Your task to perform on an android device: Open the Play Movies app and select the watchlist tab. Image 0: 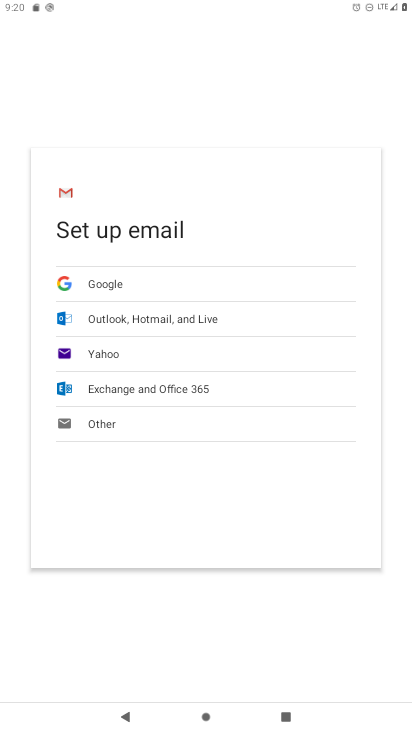
Step 0: press home button
Your task to perform on an android device: Open the Play Movies app and select the watchlist tab. Image 1: 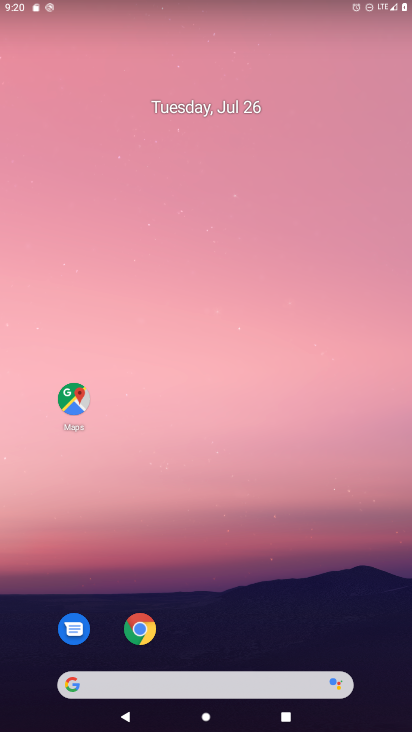
Step 1: drag from (244, 646) to (232, 106)
Your task to perform on an android device: Open the Play Movies app and select the watchlist tab. Image 2: 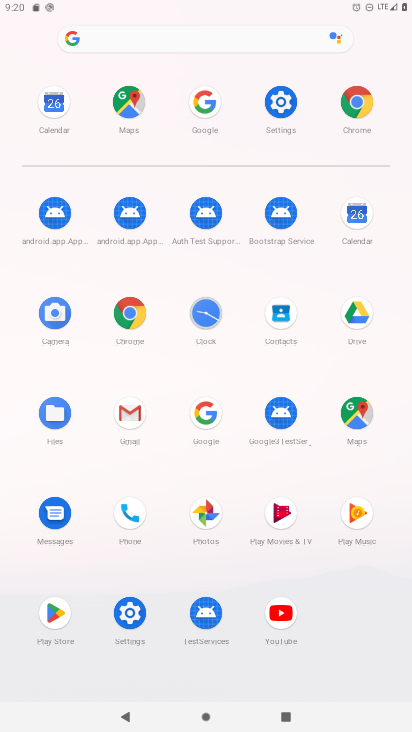
Step 2: click (288, 517)
Your task to perform on an android device: Open the Play Movies app and select the watchlist tab. Image 3: 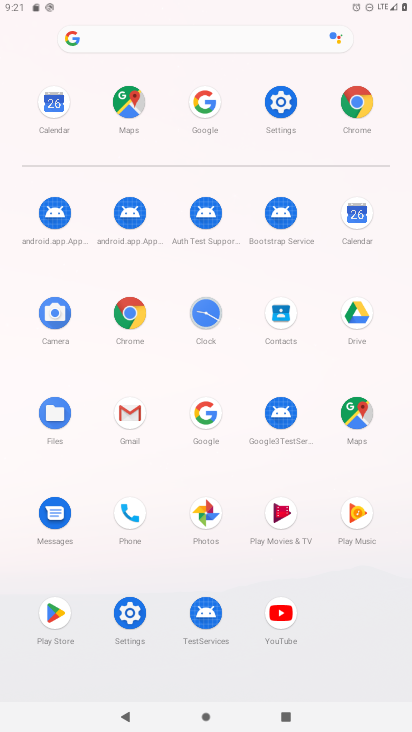
Step 3: click (288, 517)
Your task to perform on an android device: Open the Play Movies app and select the watchlist tab. Image 4: 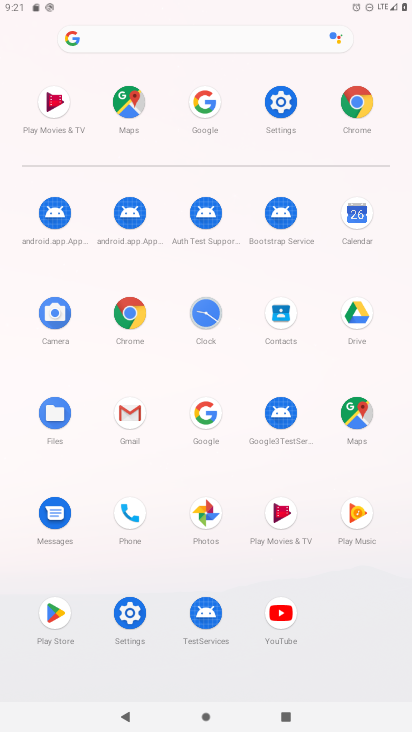
Step 4: task complete